Your task to perform on an android device: allow cookies in the chrome app Image 0: 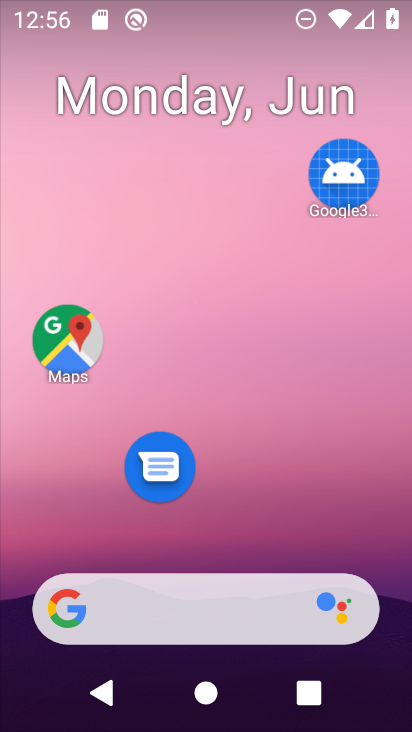
Step 0: drag from (290, 483) to (234, 79)
Your task to perform on an android device: allow cookies in the chrome app Image 1: 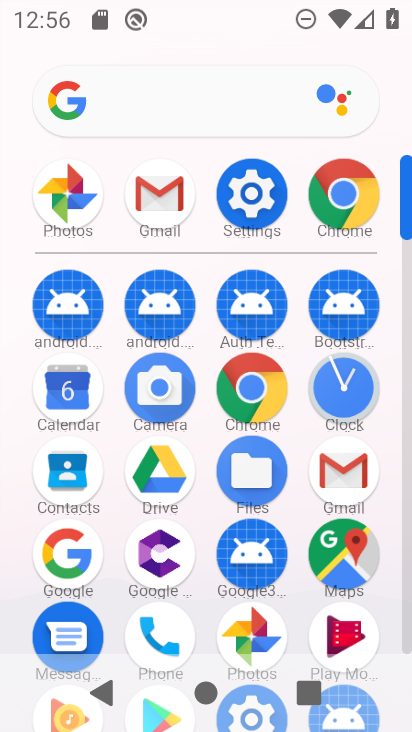
Step 1: click (323, 190)
Your task to perform on an android device: allow cookies in the chrome app Image 2: 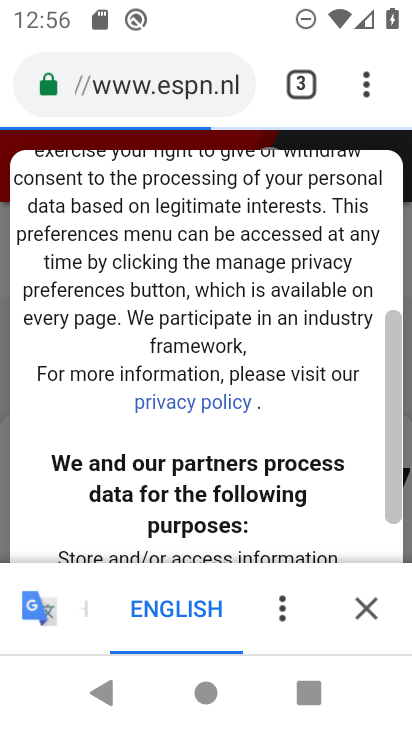
Step 2: drag from (368, 85) to (140, 509)
Your task to perform on an android device: allow cookies in the chrome app Image 3: 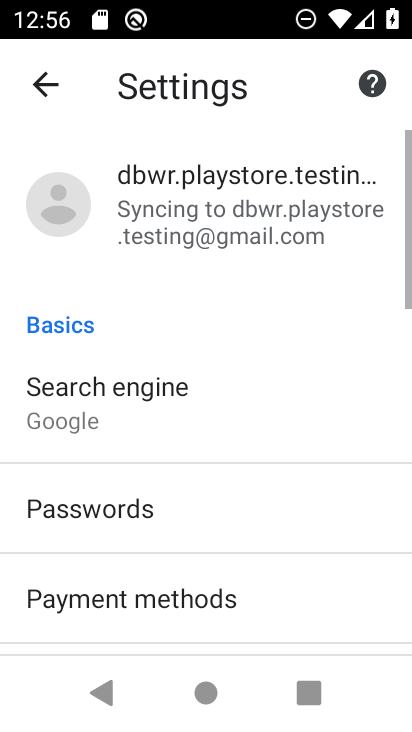
Step 3: drag from (140, 509) to (310, 6)
Your task to perform on an android device: allow cookies in the chrome app Image 4: 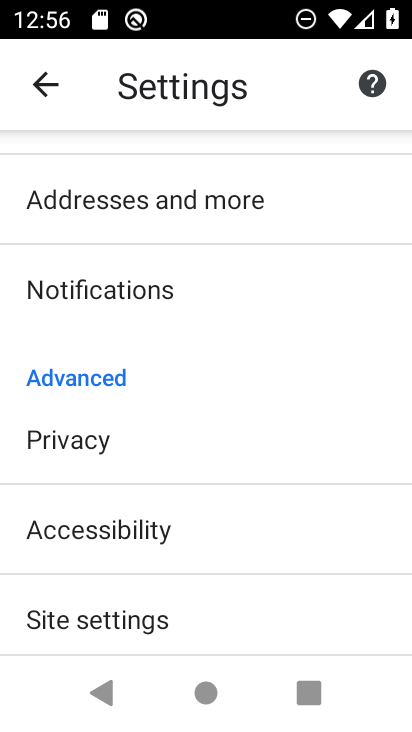
Step 4: press home button
Your task to perform on an android device: allow cookies in the chrome app Image 5: 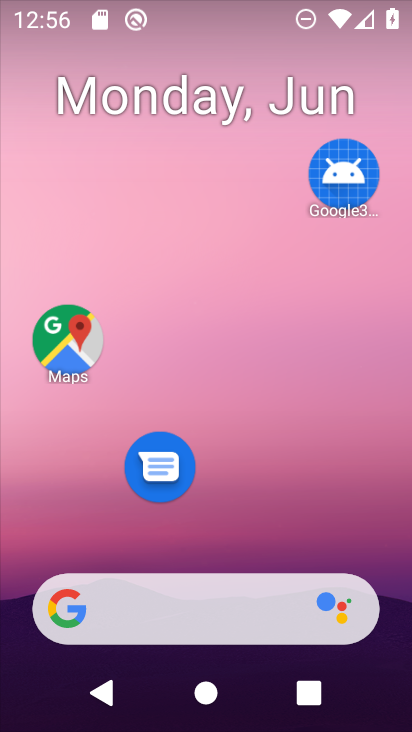
Step 5: drag from (240, 522) to (306, 30)
Your task to perform on an android device: allow cookies in the chrome app Image 6: 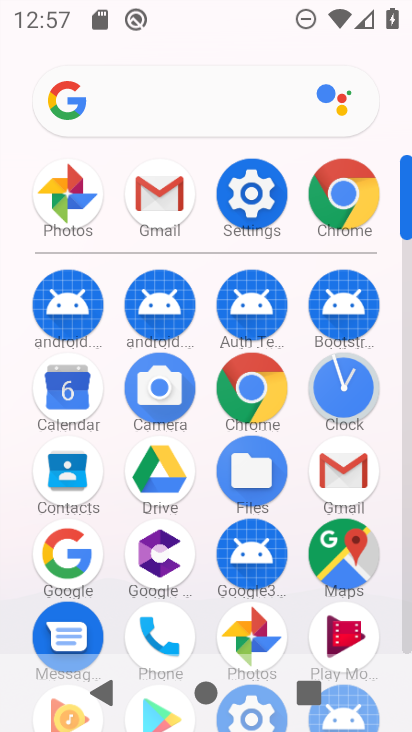
Step 6: click (358, 208)
Your task to perform on an android device: allow cookies in the chrome app Image 7: 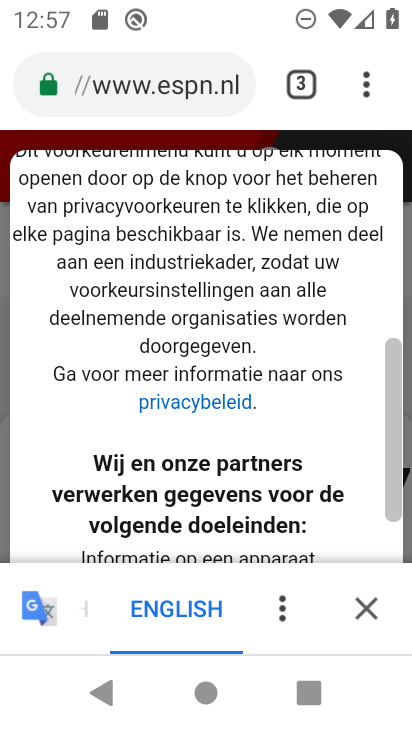
Step 7: drag from (375, 83) to (120, 540)
Your task to perform on an android device: allow cookies in the chrome app Image 8: 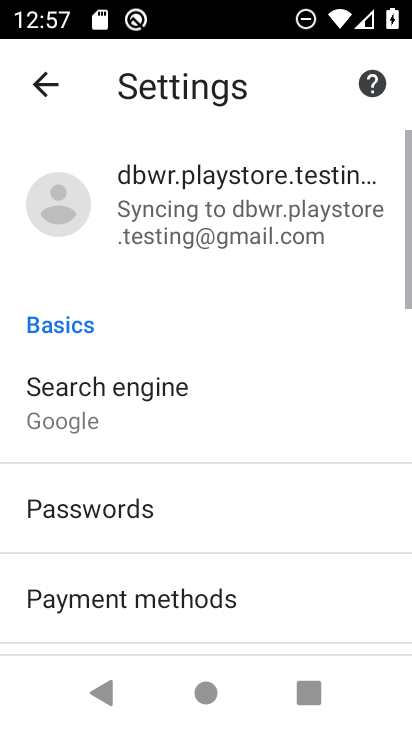
Step 8: drag from (173, 583) to (196, 228)
Your task to perform on an android device: allow cookies in the chrome app Image 9: 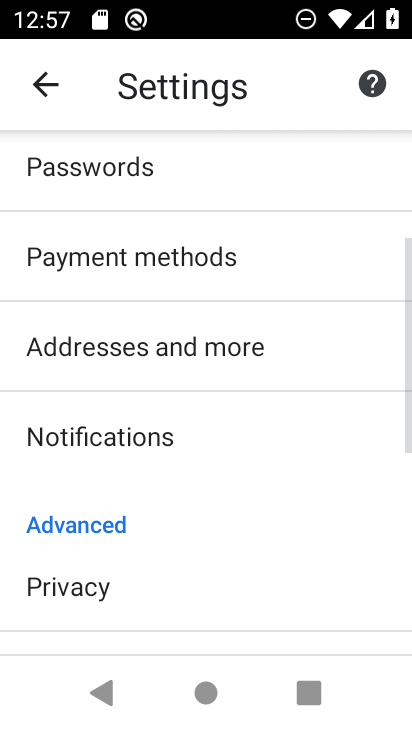
Step 9: drag from (272, 567) to (259, 179)
Your task to perform on an android device: allow cookies in the chrome app Image 10: 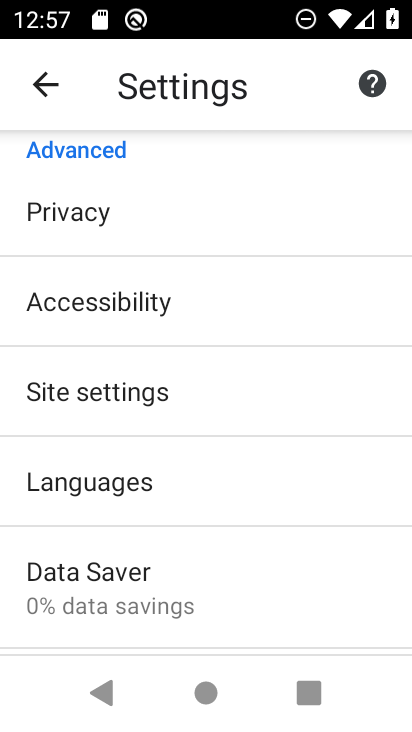
Step 10: drag from (211, 231) to (177, 240)
Your task to perform on an android device: allow cookies in the chrome app Image 11: 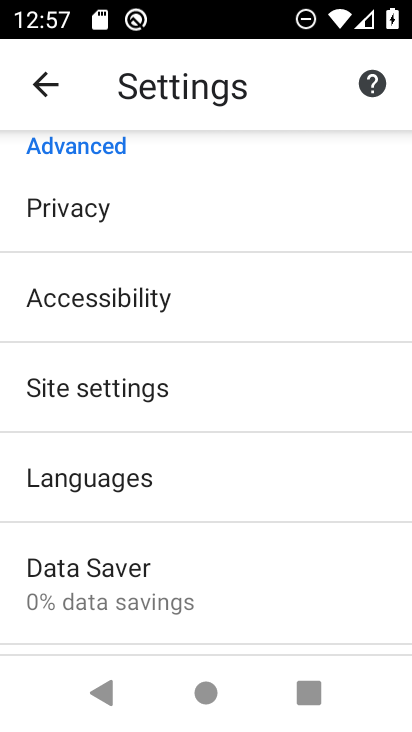
Step 11: click (176, 381)
Your task to perform on an android device: allow cookies in the chrome app Image 12: 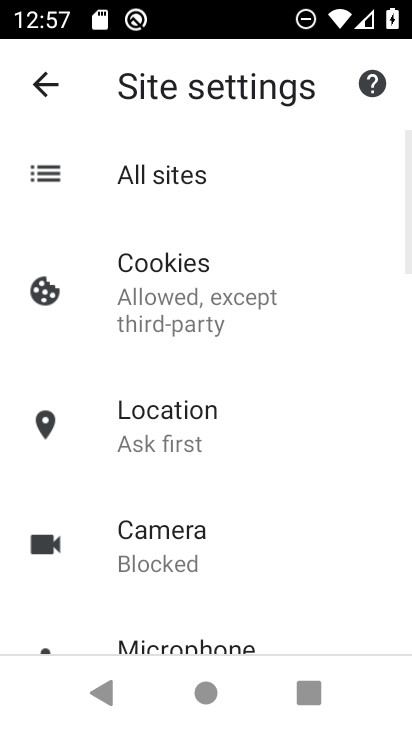
Step 12: click (189, 318)
Your task to perform on an android device: allow cookies in the chrome app Image 13: 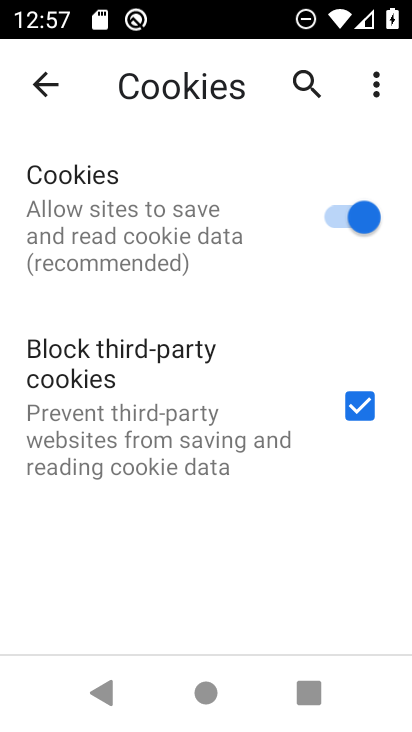
Step 13: task complete